Your task to perform on an android device: set the stopwatch Image 0: 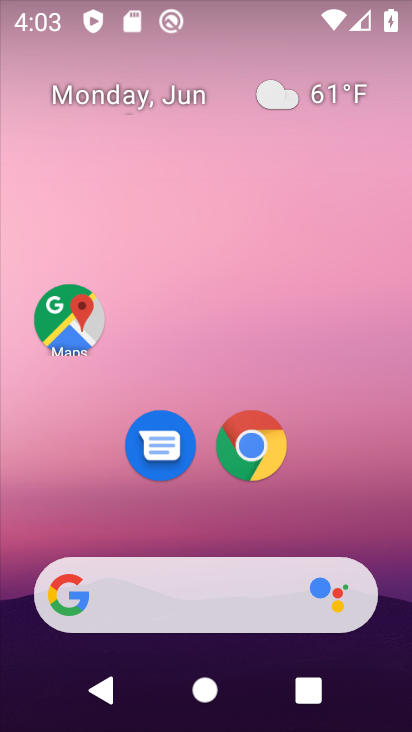
Step 0: drag from (221, 527) to (233, 488)
Your task to perform on an android device: set the stopwatch Image 1: 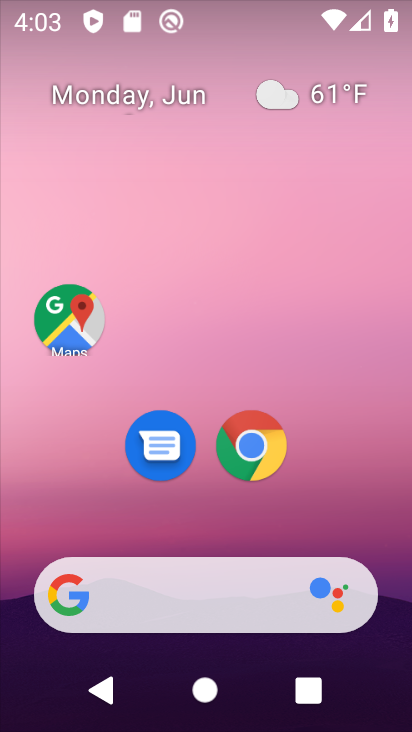
Step 1: drag from (221, 531) to (253, 106)
Your task to perform on an android device: set the stopwatch Image 2: 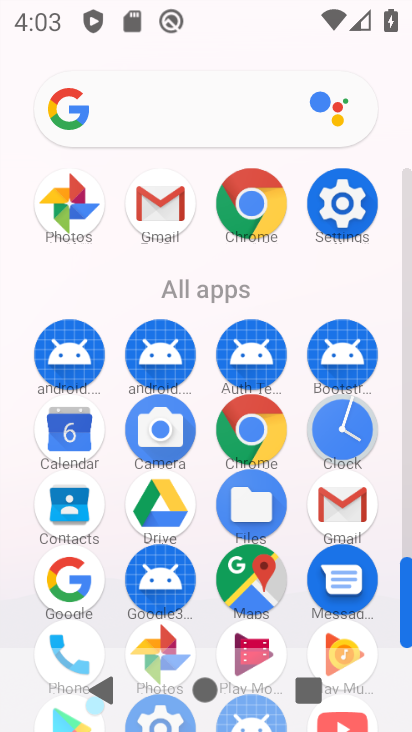
Step 2: click (344, 430)
Your task to perform on an android device: set the stopwatch Image 3: 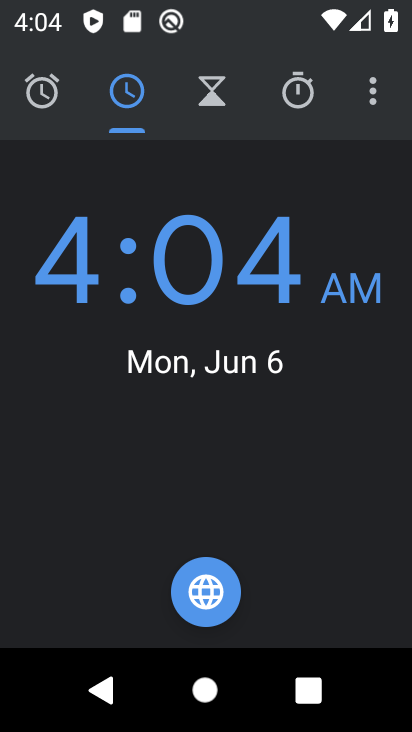
Step 3: click (294, 98)
Your task to perform on an android device: set the stopwatch Image 4: 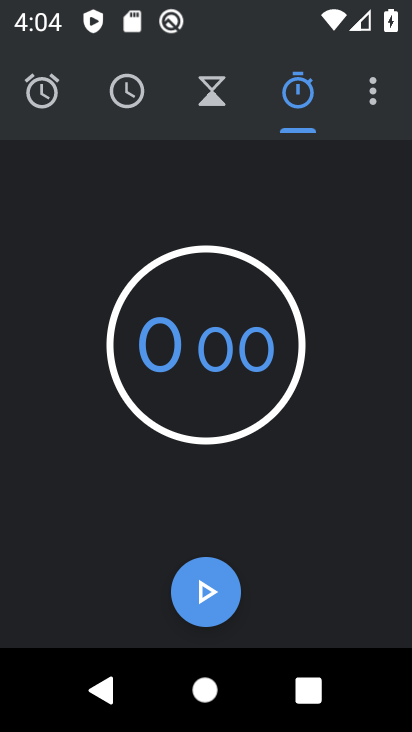
Step 4: click (219, 601)
Your task to perform on an android device: set the stopwatch Image 5: 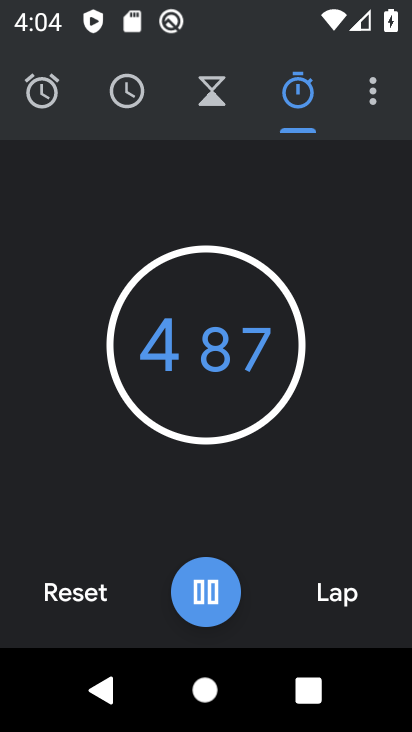
Step 5: click (209, 586)
Your task to perform on an android device: set the stopwatch Image 6: 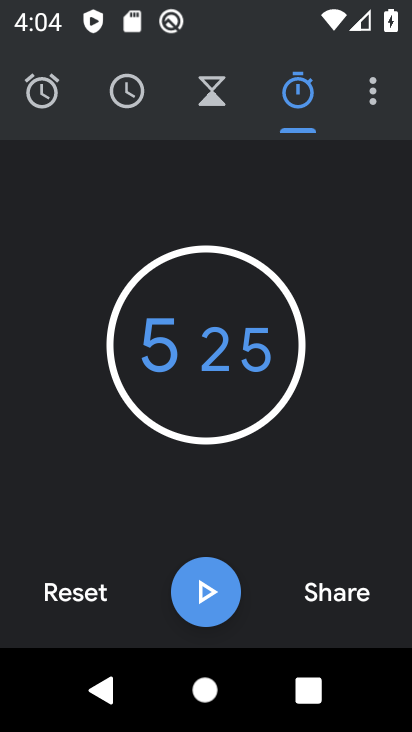
Step 6: task complete